Your task to perform on an android device: open a new tab in the chrome app Image 0: 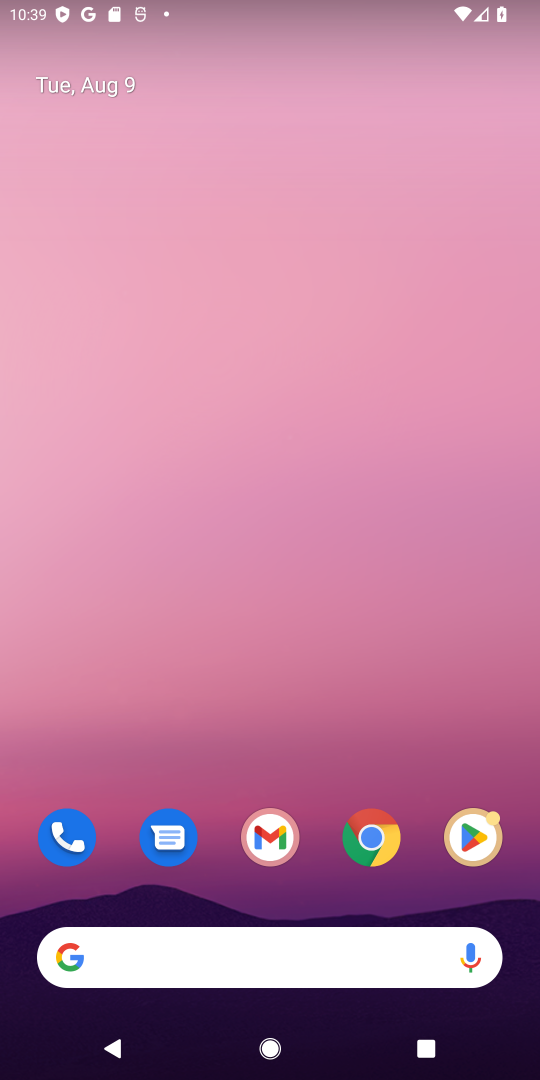
Step 0: click (368, 832)
Your task to perform on an android device: open a new tab in the chrome app Image 1: 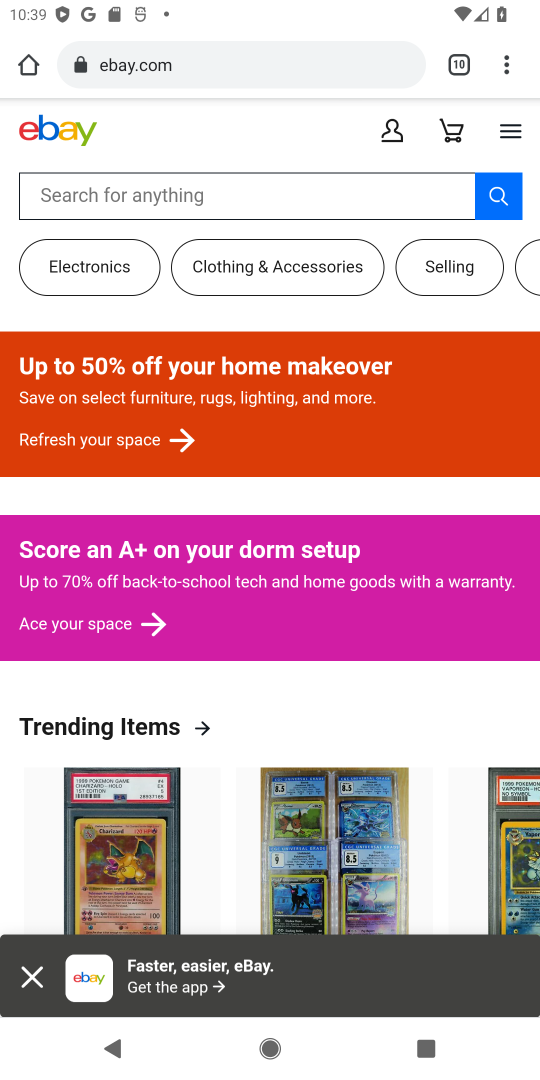
Step 1: task complete